Your task to perform on an android device: show emergency info Image 0: 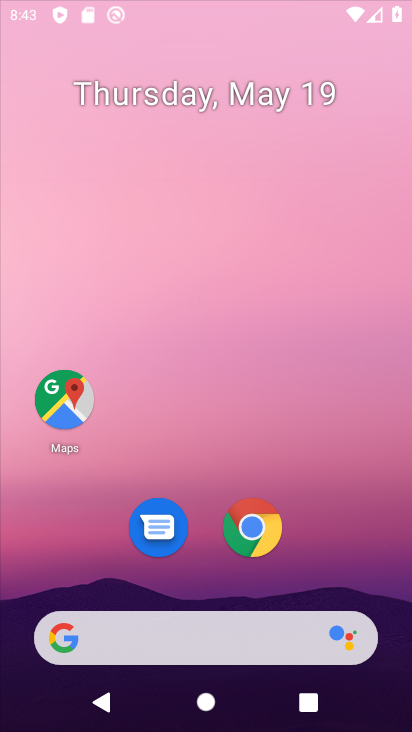
Step 0: click (303, 293)
Your task to perform on an android device: show emergency info Image 1: 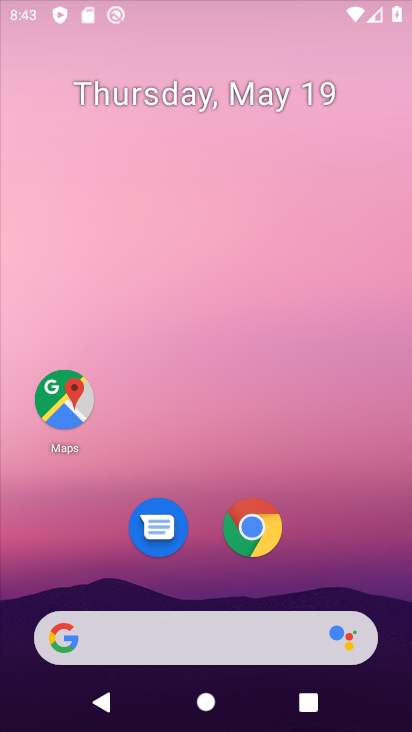
Step 1: drag from (204, 572) to (251, 261)
Your task to perform on an android device: show emergency info Image 2: 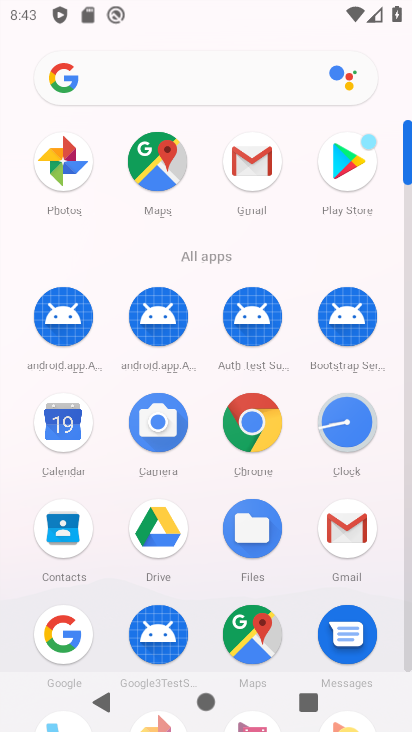
Step 2: drag from (217, 570) to (211, 239)
Your task to perform on an android device: show emergency info Image 3: 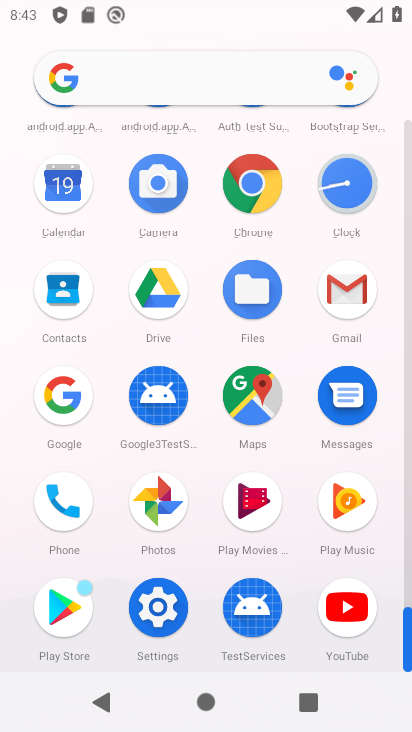
Step 3: click (170, 592)
Your task to perform on an android device: show emergency info Image 4: 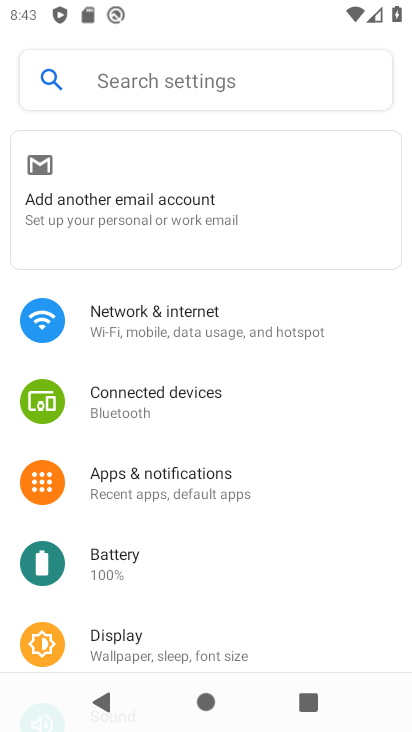
Step 4: drag from (204, 633) to (265, 257)
Your task to perform on an android device: show emergency info Image 5: 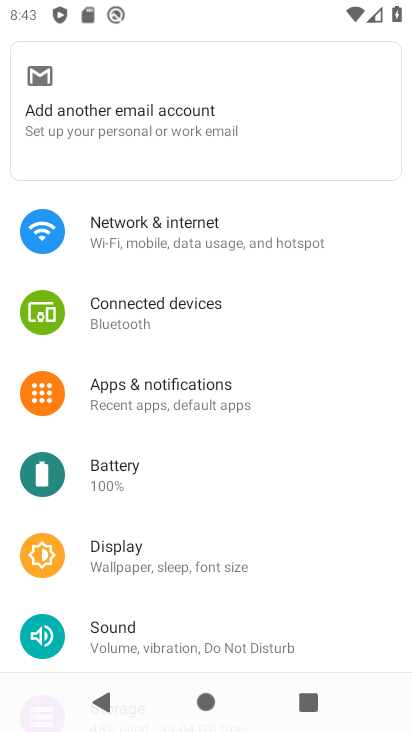
Step 5: drag from (199, 626) to (264, 345)
Your task to perform on an android device: show emergency info Image 6: 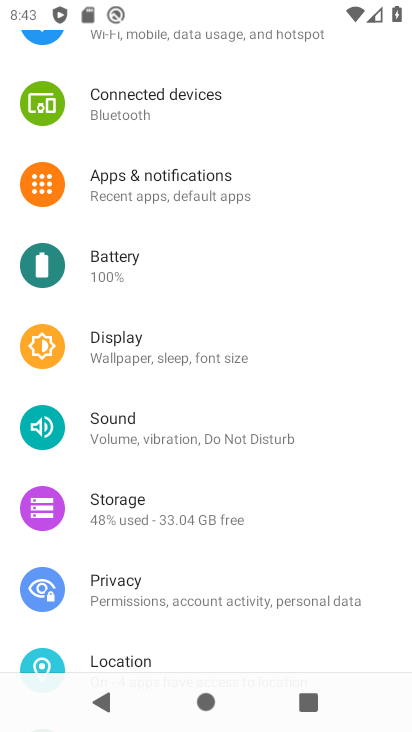
Step 6: drag from (257, 618) to (304, 242)
Your task to perform on an android device: show emergency info Image 7: 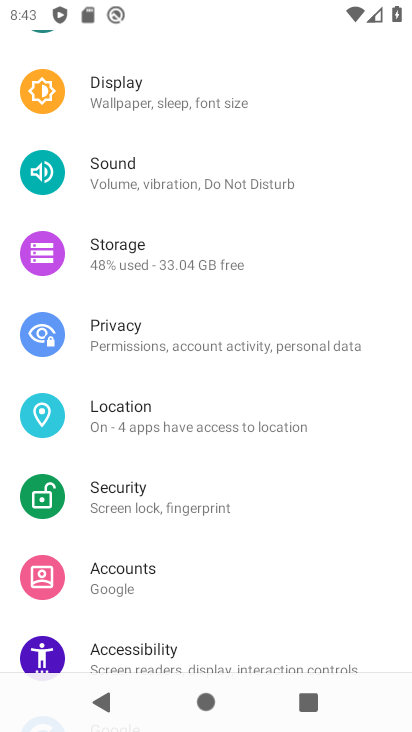
Step 7: drag from (243, 599) to (289, 150)
Your task to perform on an android device: show emergency info Image 8: 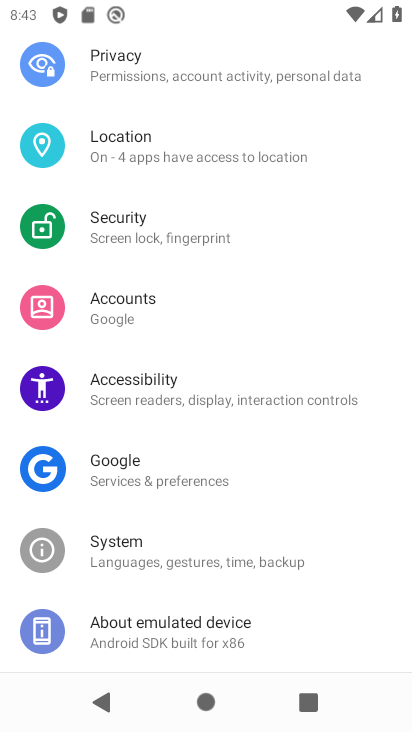
Step 8: drag from (210, 637) to (194, 363)
Your task to perform on an android device: show emergency info Image 9: 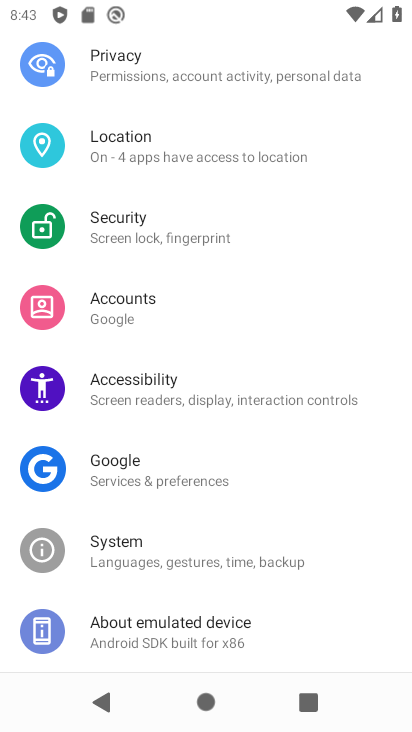
Step 9: click (110, 635)
Your task to perform on an android device: show emergency info Image 10: 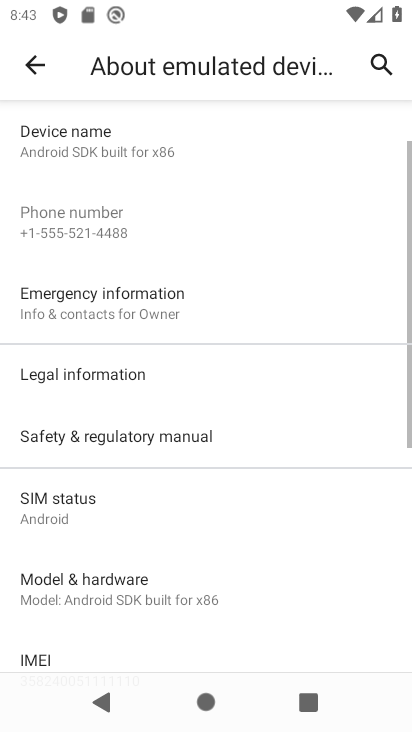
Step 10: drag from (243, 469) to (366, 217)
Your task to perform on an android device: show emergency info Image 11: 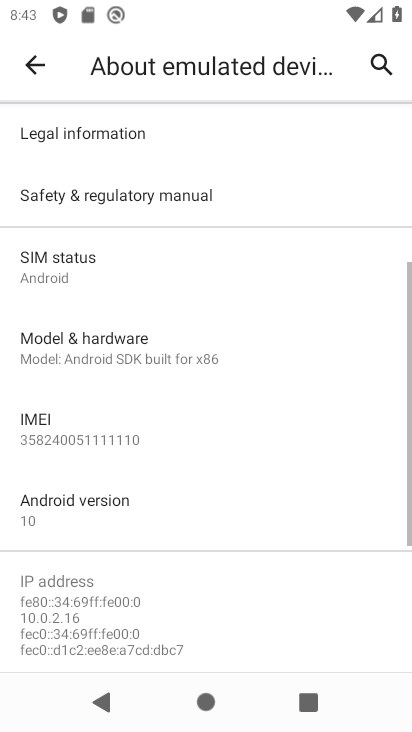
Step 11: drag from (233, 209) to (166, 615)
Your task to perform on an android device: show emergency info Image 12: 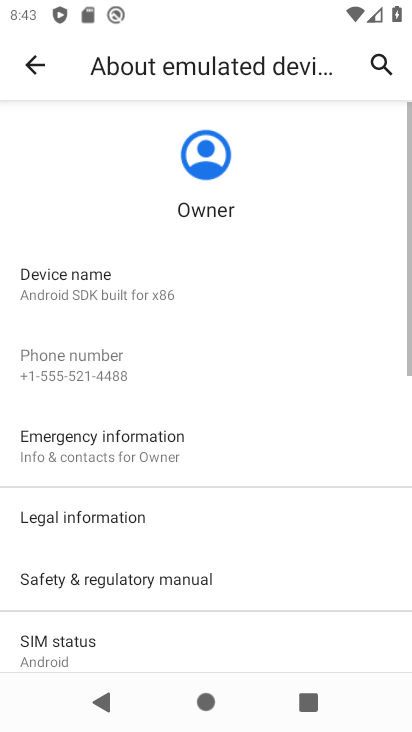
Step 12: click (120, 458)
Your task to perform on an android device: show emergency info Image 13: 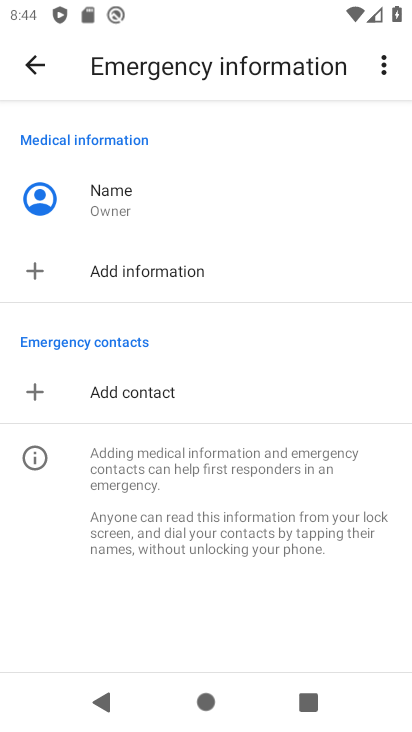
Step 13: task complete